Your task to perform on an android device: allow cookies in the chrome app Image 0: 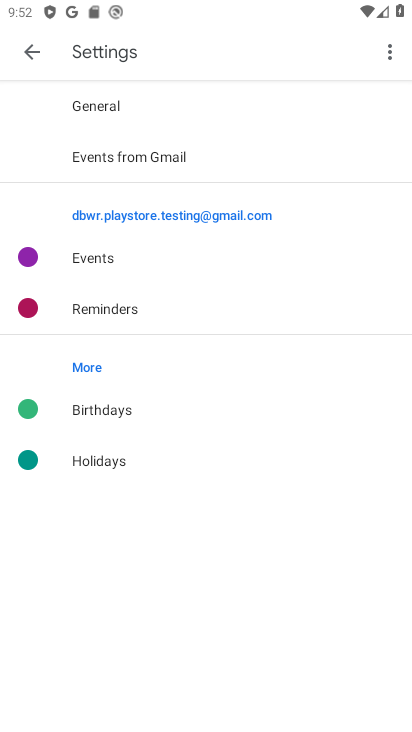
Step 0: press home button
Your task to perform on an android device: allow cookies in the chrome app Image 1: 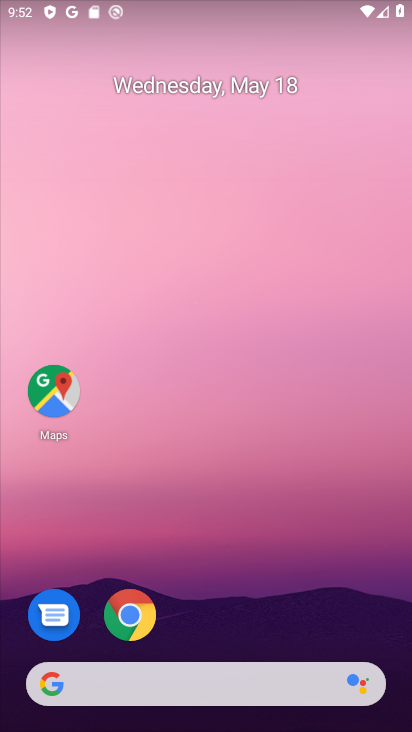
Step 1: drag from (281, 589) to (238, 108)
Your task to perform on an android device: allow cookies in the chrome app Image 2: 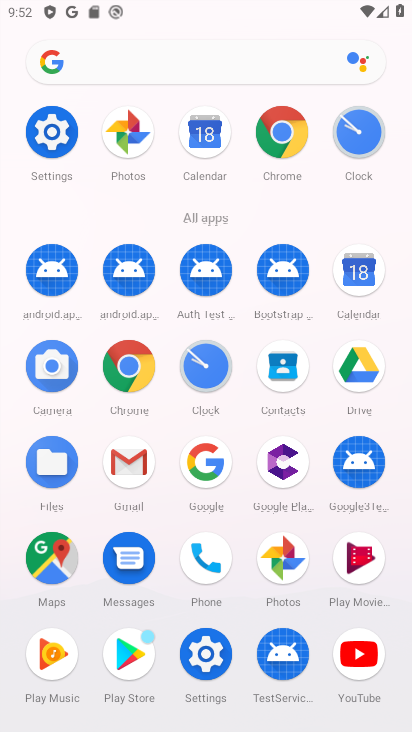
Step 2: click (127, 373)
Your task to perform on an android device: allow cookies in the chrome app Image 3: 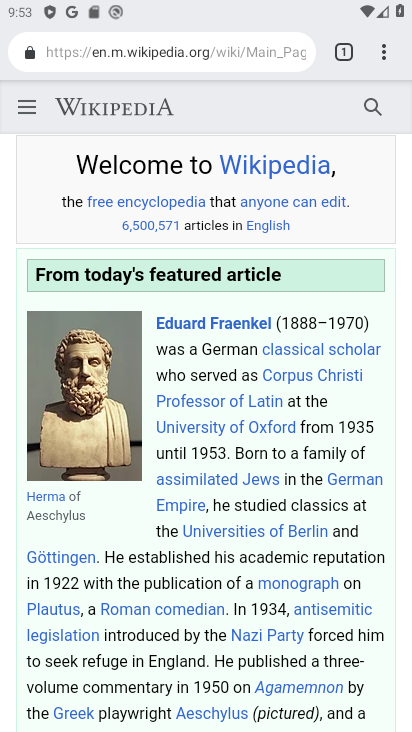
Step 3: click (389, 63)
Your task to perform on an android device: allow cookies in the chrome app Image 4: 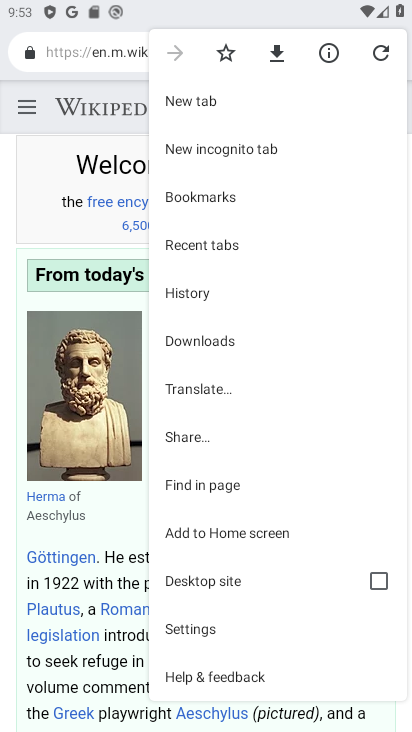
Step 4: click (242, 630)
Your task to perform on an android device: allow cookies in the chrome app Image 5: 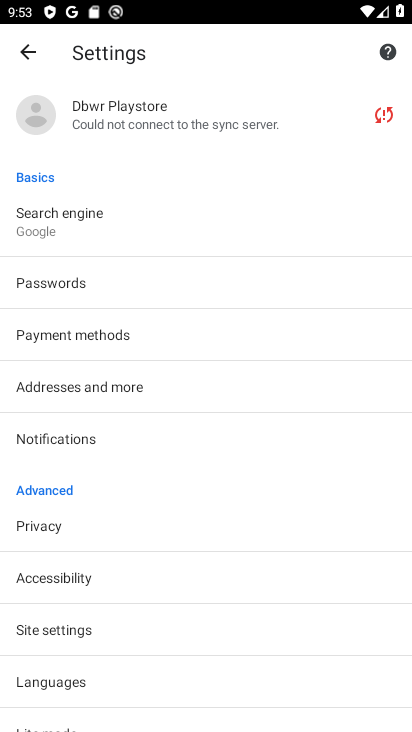
Step 5: click (115, 624)
Your task to perform on an android device: allow cookies in the chrome app Image 6: 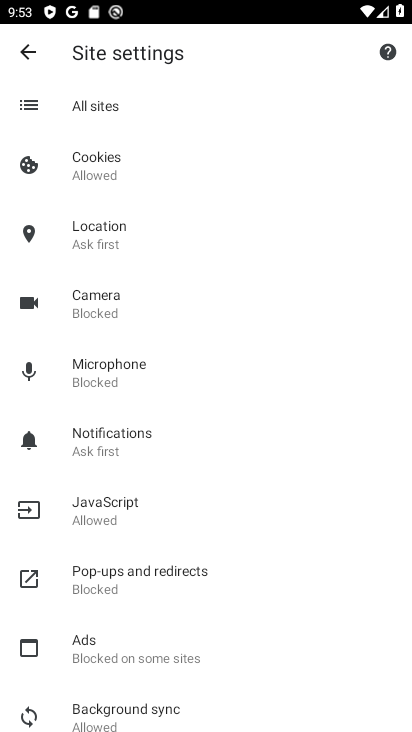
Step 6: click (137, 168)
Your task to perform on an android device: allow cookies in the chrome app Image 7: 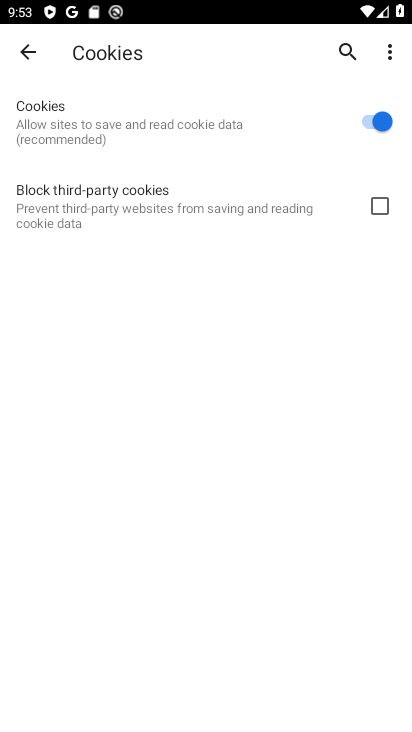
Step 7: task complete